Your task to perform on an android device: Open eBay Image 0: 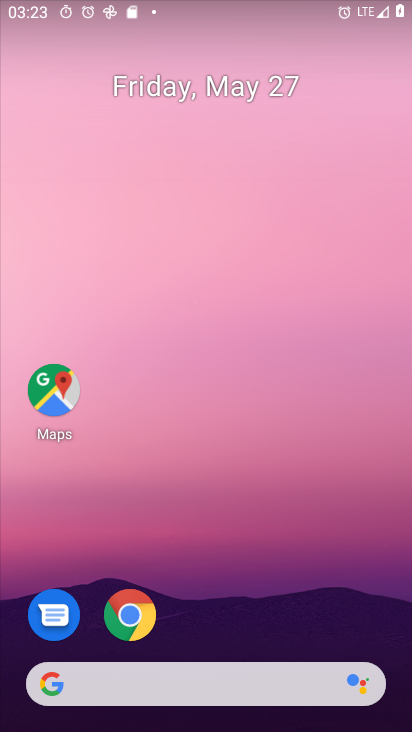
Step 0: drag from (345, 644) to (359, 237)
Your task to perform on an android device: Open eBay Image 1: 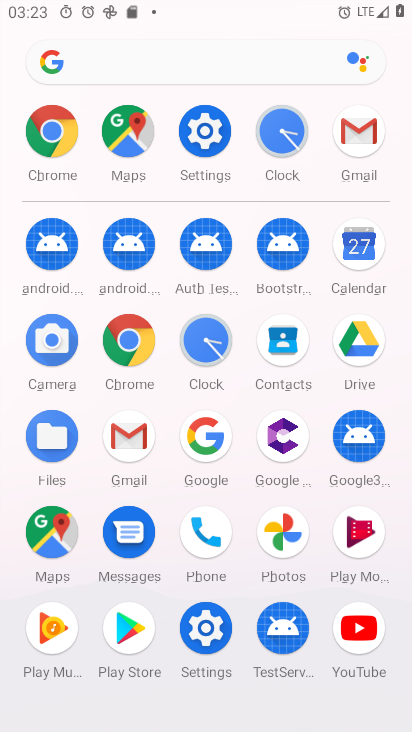
Step 1: click (141, 352)
Your task to perform on an android device: Open eBay Image 2: 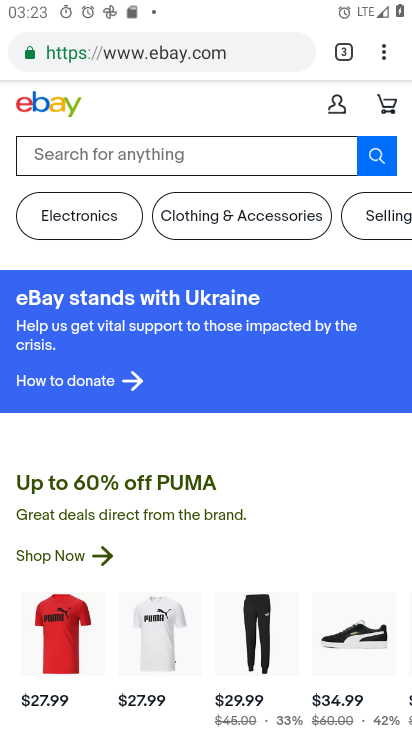
Step 2: task complete